Your task to perform on an android device: Open Android settings Image 0: 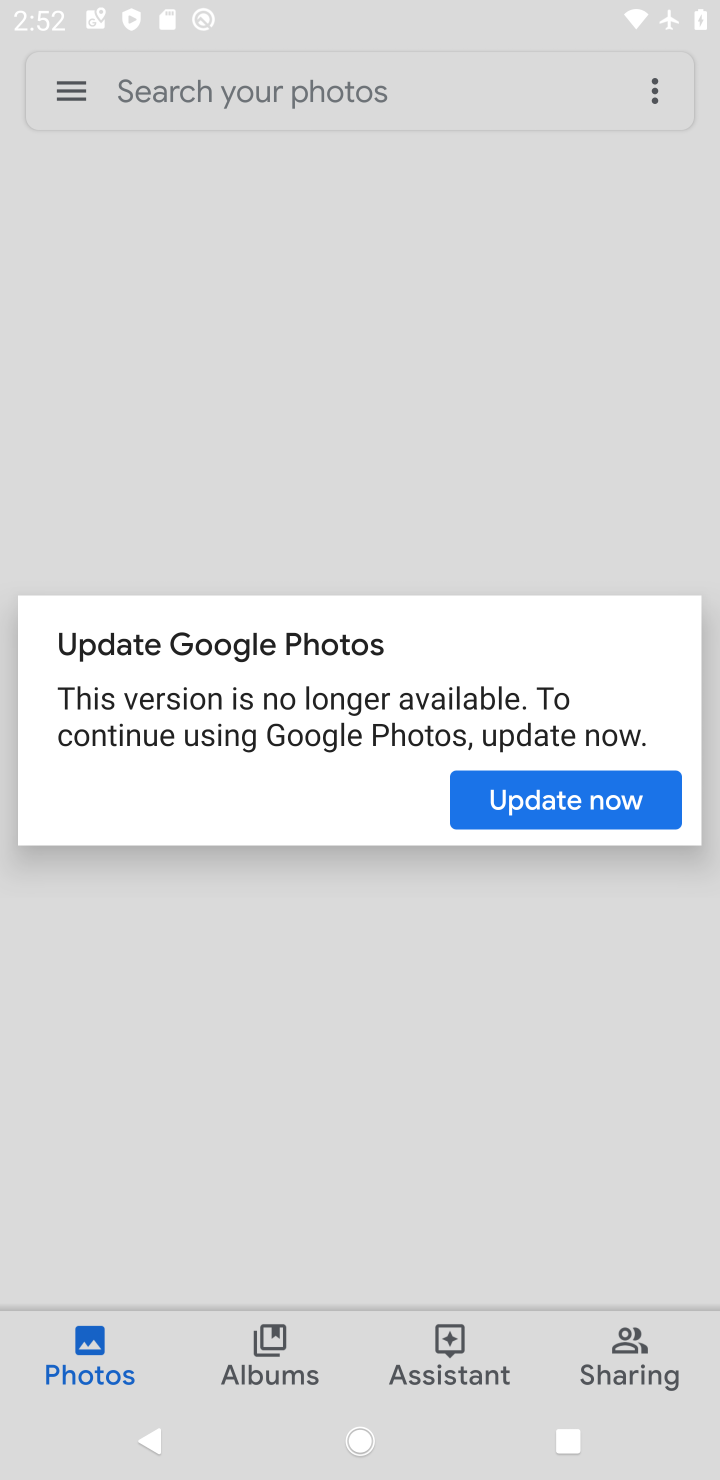
Step 0: press home button
Your task to perform on an android device: Open Android settings Image 1: 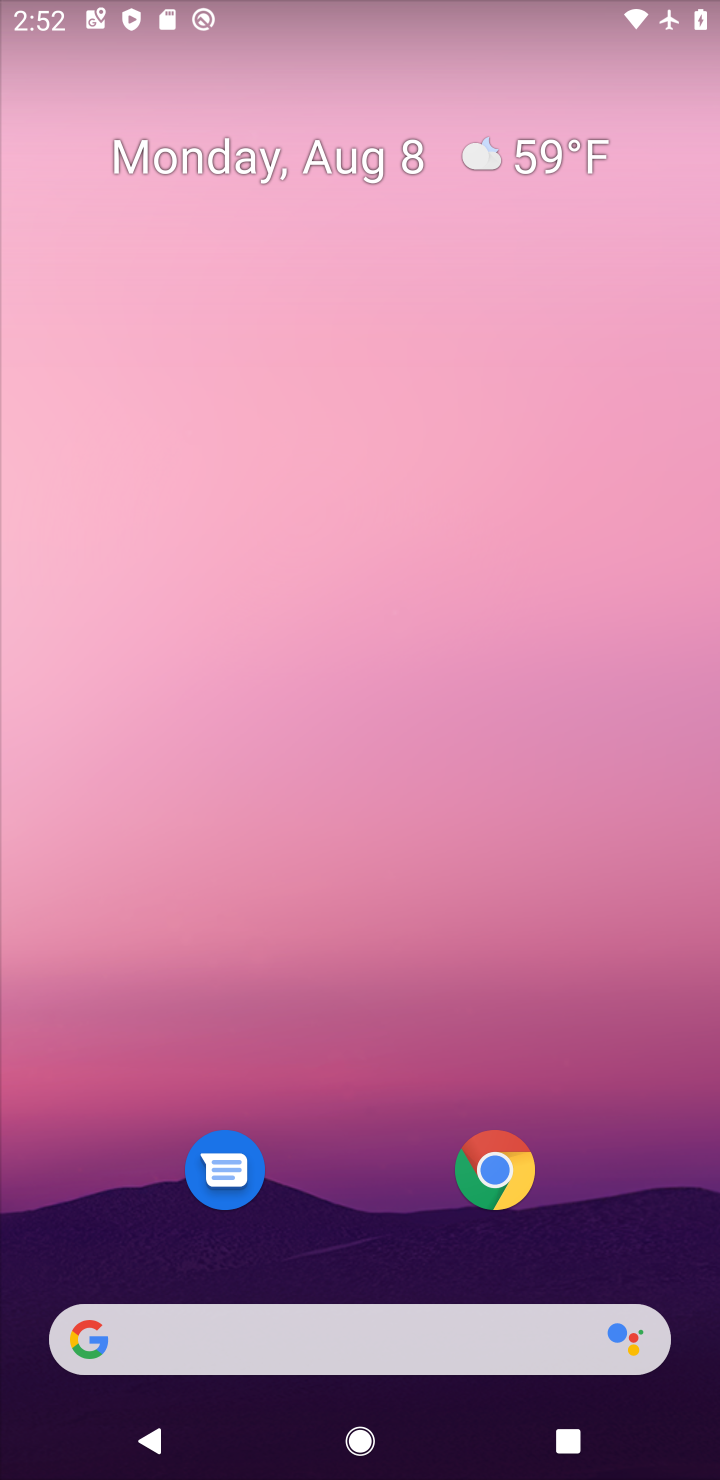
Step 1: drag from (339, 1199) to (341, 251)
Your task to perform on an android device: Open Android settings Image 2: 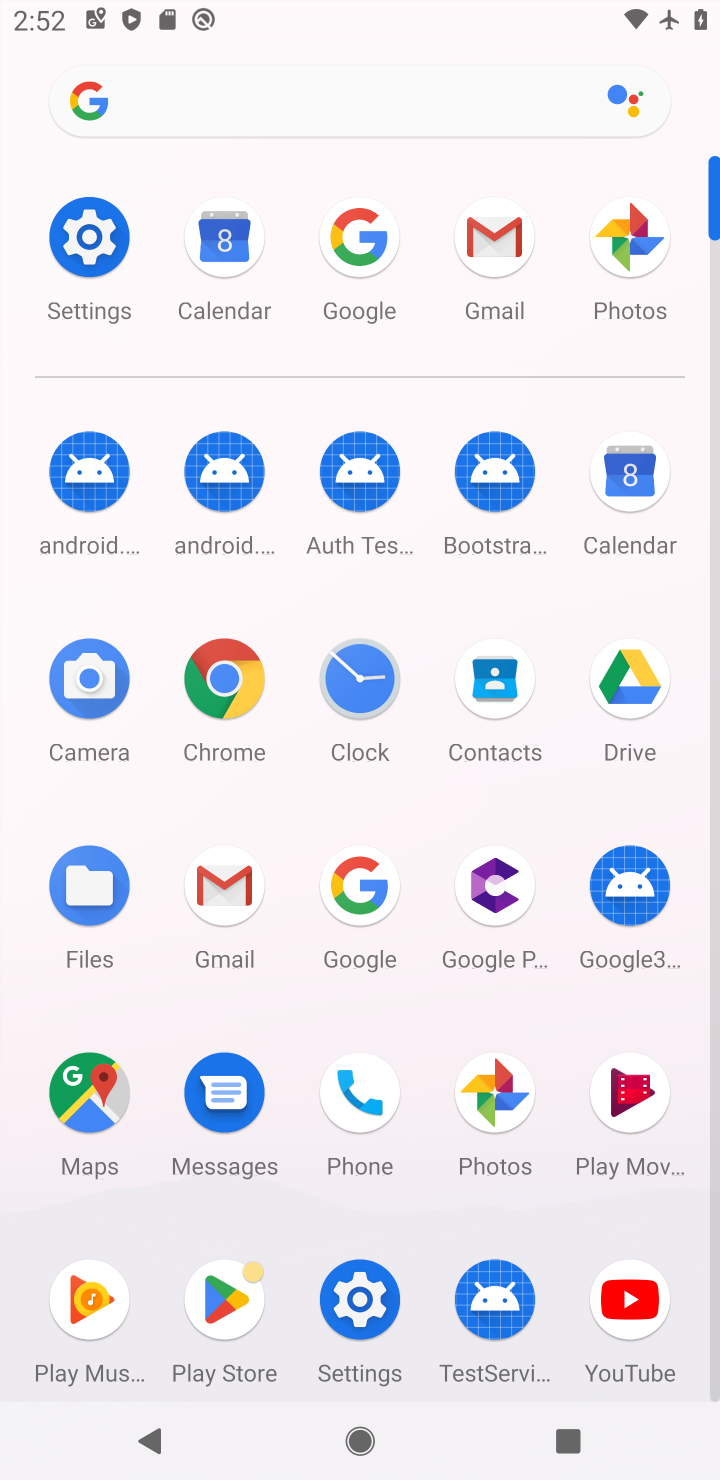
Step 2: click (113, 246)
Your task to perform on an android device: Open Android settings Image 3: 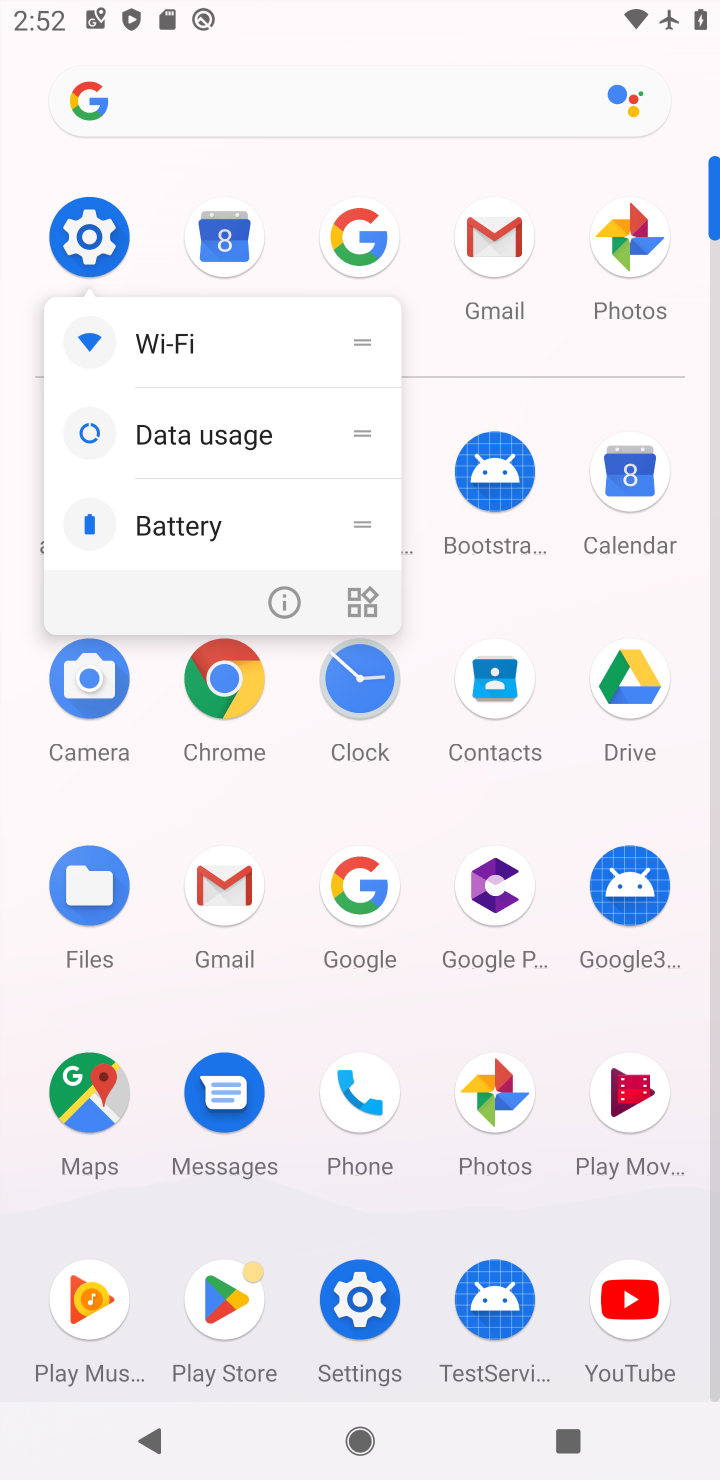
Step 3: click (113, 246)
Your task to perform on an android device: Open Android settings Image 4: 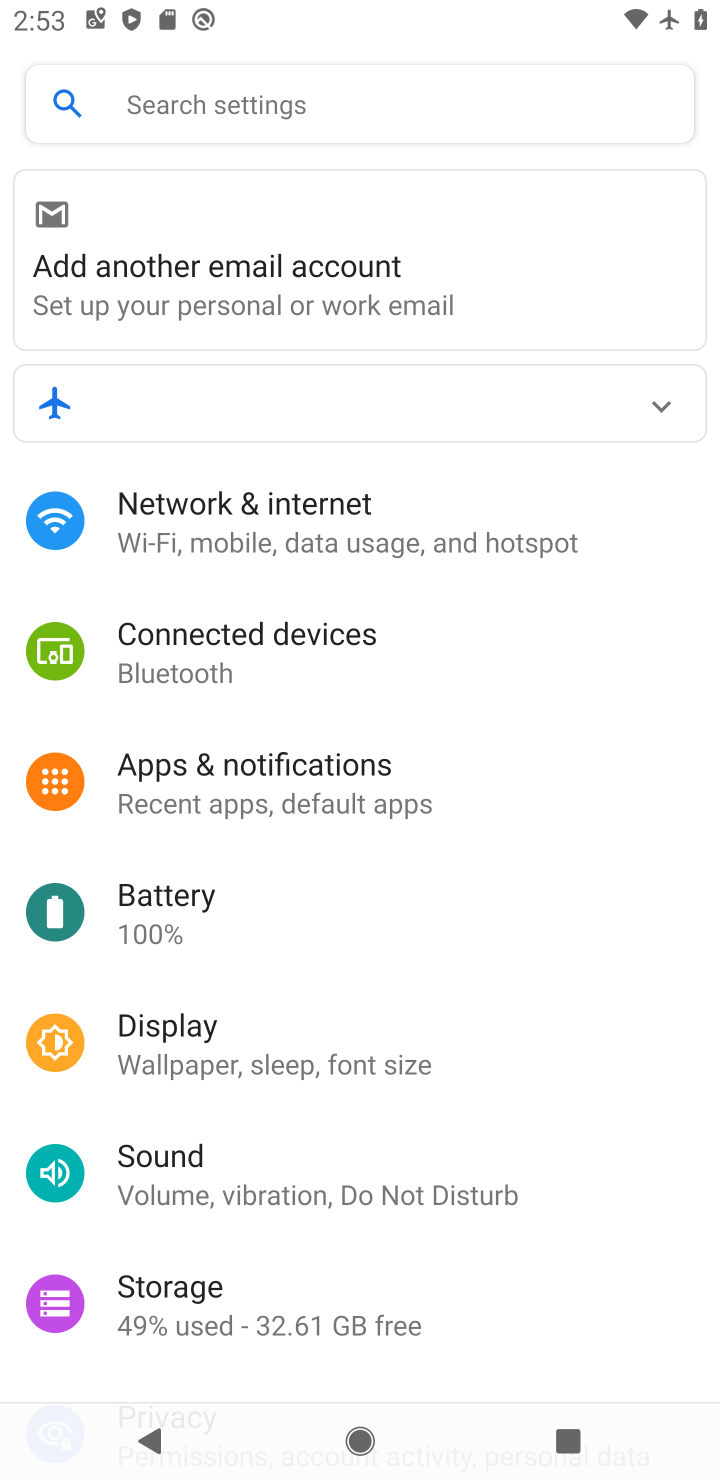
Step 4: task complete